Your task to perform on an android device: open a new tab in the chrome app Image 0: 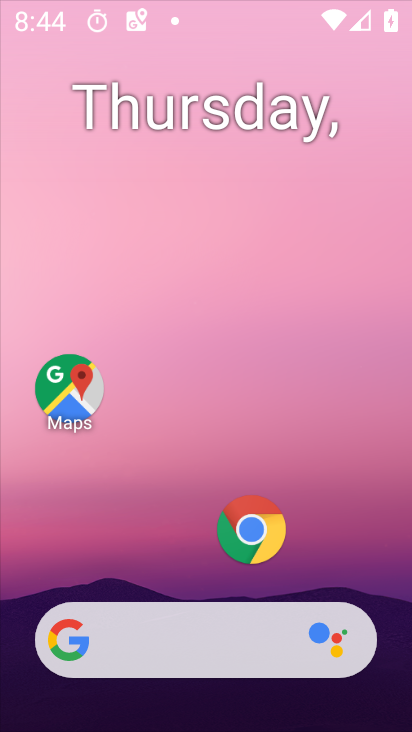
Step 0: press home button
Your task to perform on an android device: open a new tab in the chrome app Image 1: 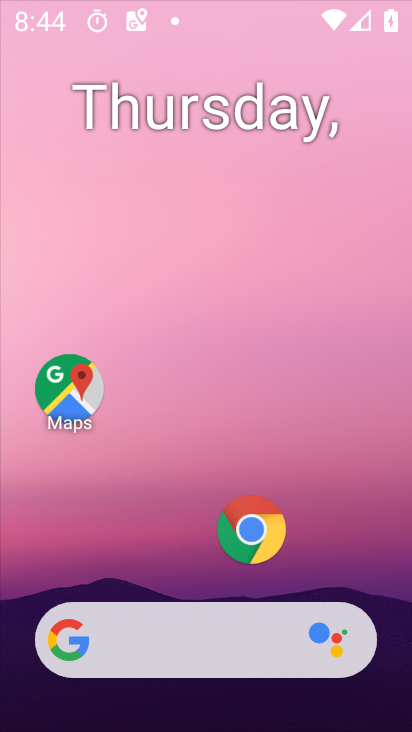
Step 1: task complete